Your task to perform on an android device: turn off improve location accuracy Image 0: 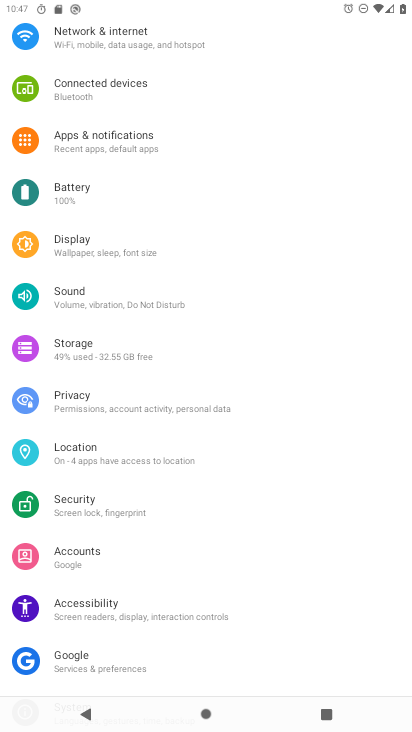
Step 0: press home button
Your task to perform on an android device: turn off improve location accuracy Image 1: 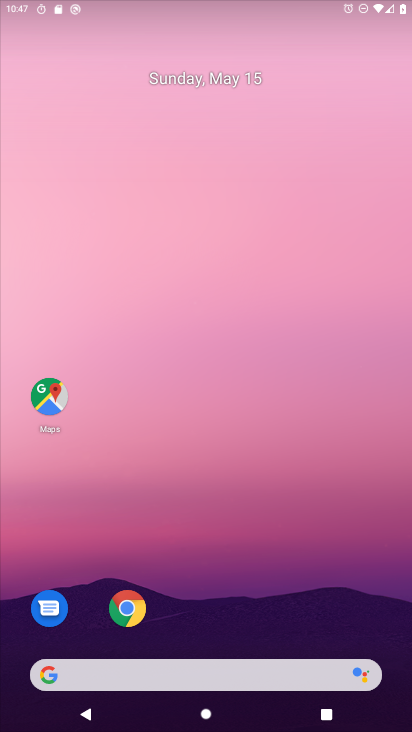
Step 1: drag from (348, 567) to (324, 183)
Your task to perform on an android device: turn off improve location accuracy Image 2: 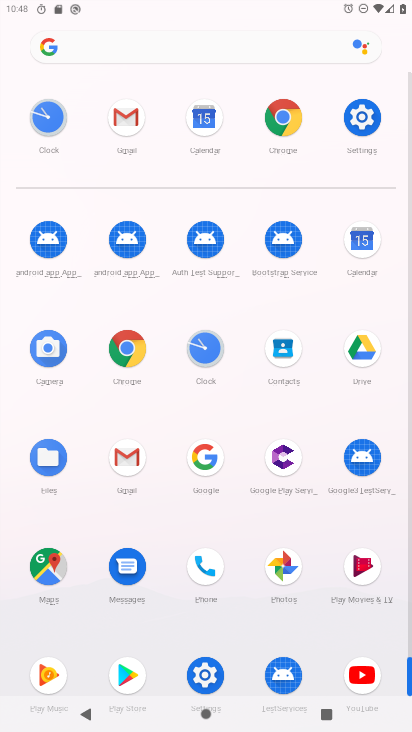
Step 2: click (197, 667)
Your task to perform on an android device: turn off improve location accuracy Image 3: 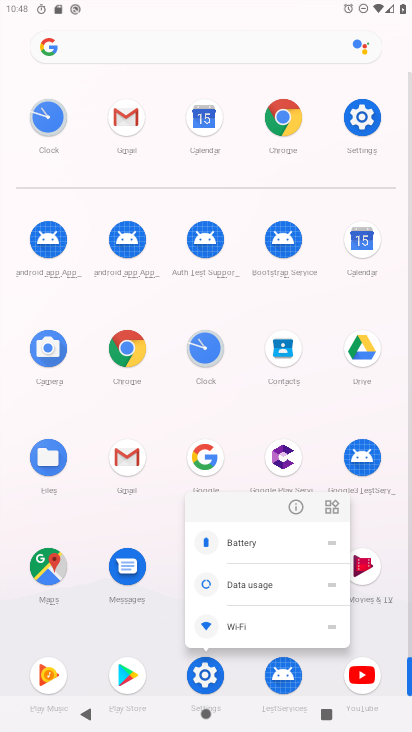
Step 3: click (206, 671)
Your task to perform on an android device: turn off improve location accuracy Image 4: 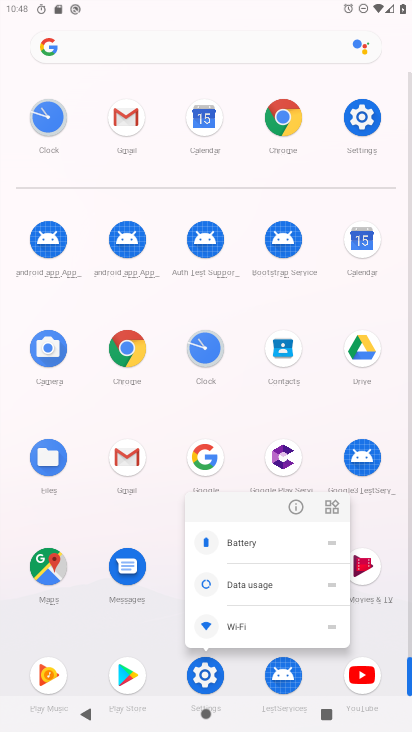
Step 4: click (212, 685)
Your task to perform on an android device: turn off improve location accuracy Image 5: 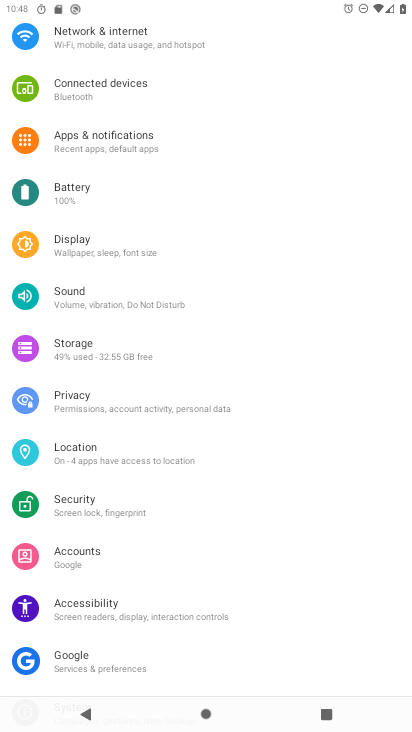
Step 5: click (77, 452)
Your task to perform on an android device: turn off improve location accuracy Image 6: 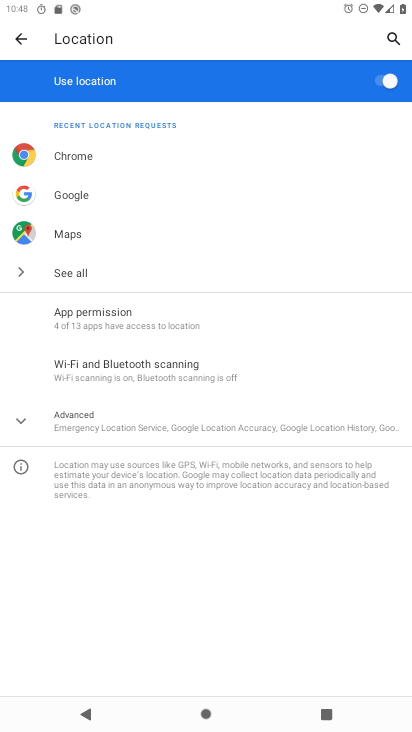
Step 6: click (159, 423)
Your task to perform on an android device: turn off improve location accuracy Image 7: 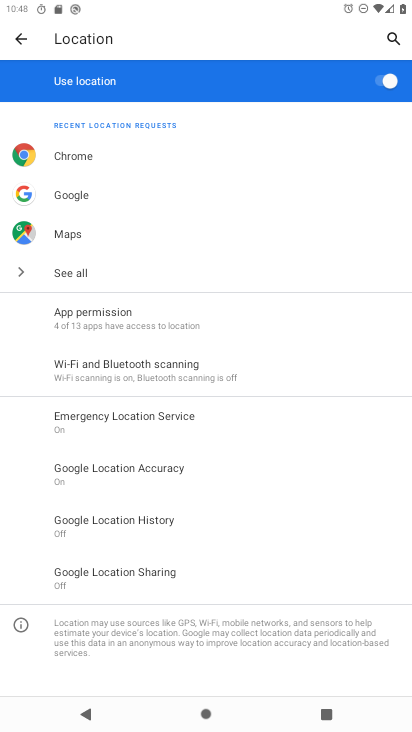
Step 7: click (111, 466)
Your task to perform on an android device: turn off improve location accuracy Image 8: 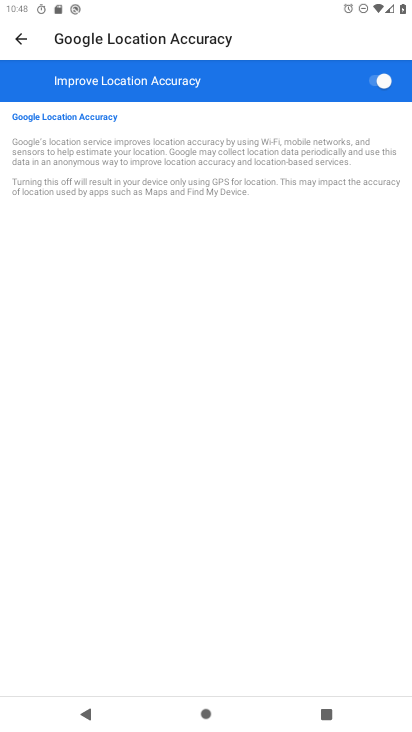
Step 8: click (371, 81)
Your task to perform on an android device: turn off improve location accuracy Image 9: 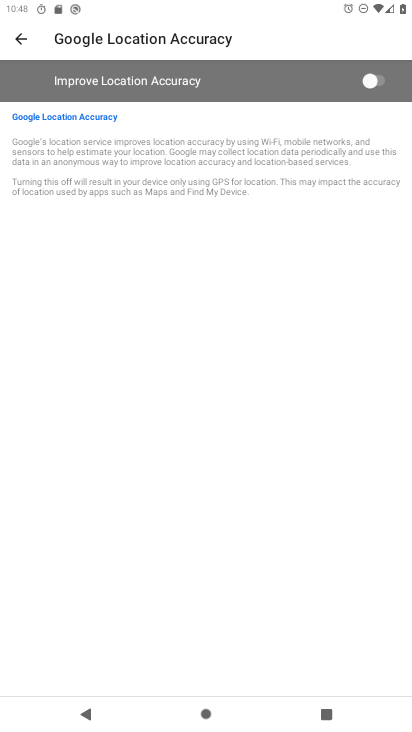
Step 9: task complete